Your task to perform on an android device: empty trash in the gmail app Image 0: 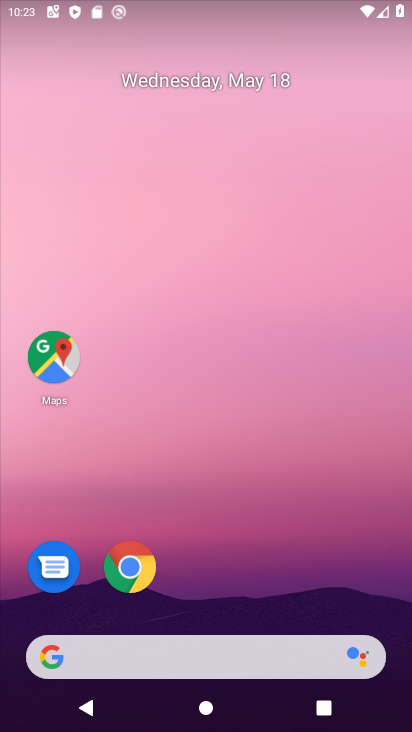
Step 0: drag from (241, 705) to (292, 17)
Your task to perform on an android device: empty trash in the gmail app Image 1: 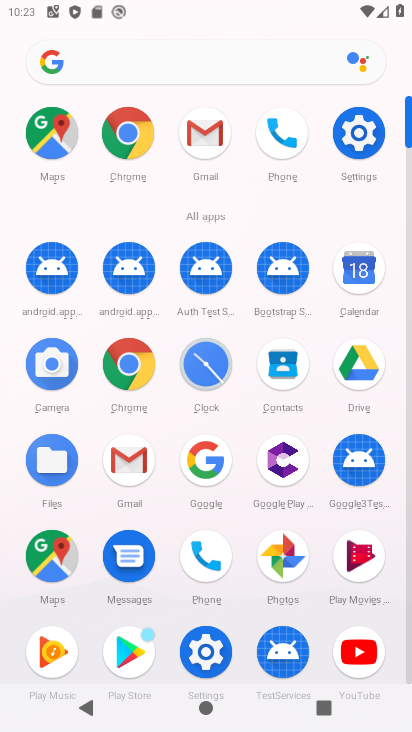
Step 1: click (127, 459)
Your task to perform on an android device: empty trash in the gmail app Image 2: 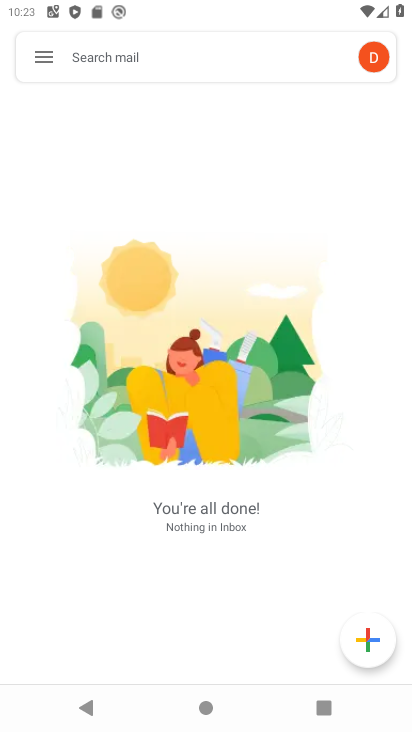
Step 2: click (41, 54)
Your task to perform on an android device: empty trash in the gmail app Image 3: 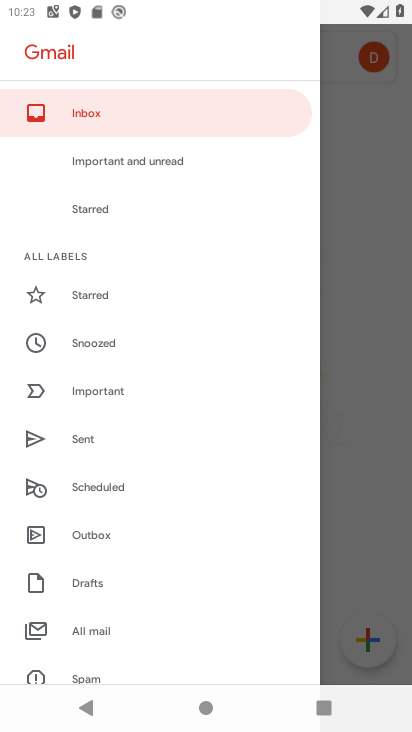
Step 3: drag from (89, 554) to (181, 388)
Your task to perform on an android device: empty trash in the gmail app Image 4: 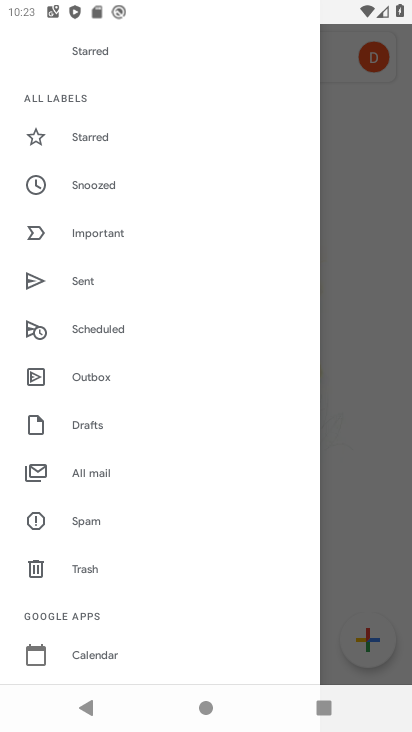
Step 4: click (103, 567)
Your task to perform on an android device: empty trash in the gmail app Image 5: 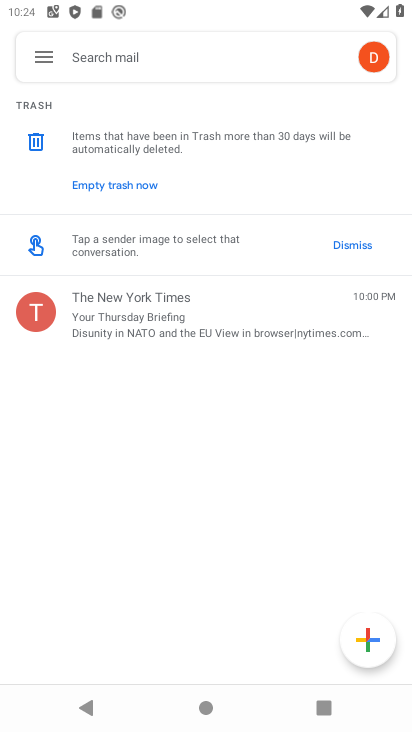
Step 5: click (145, 183)
Your task to perform on an android device: empty trash in the gmail app Image 6: 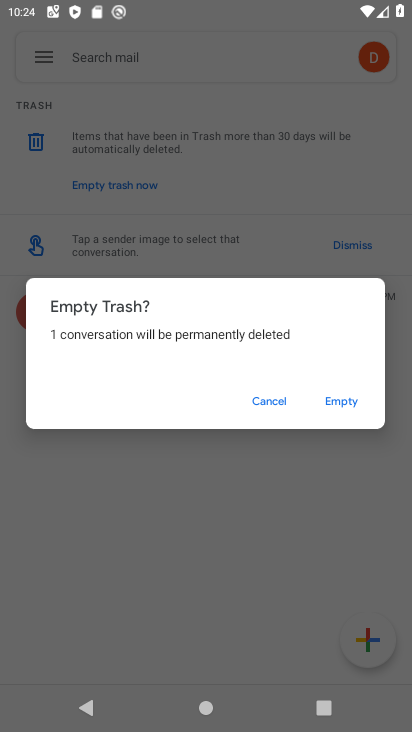
Step 6: click (336, 395)
Your task to perform on an android device: empty trash in the gmail app Image 7: 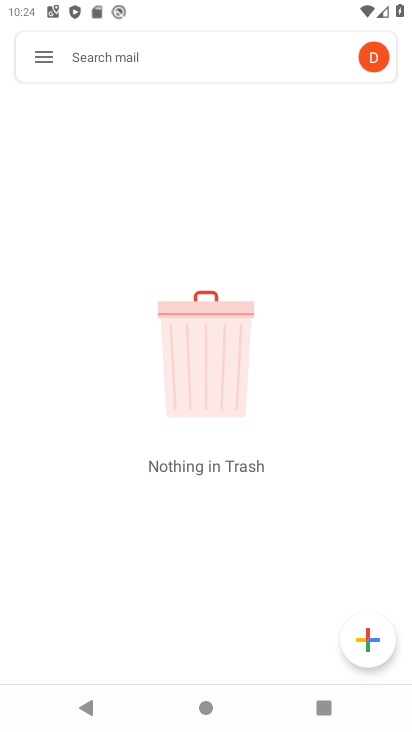
Step 7: task complete